Your task to perform on an android device: show emergency info Image 0: 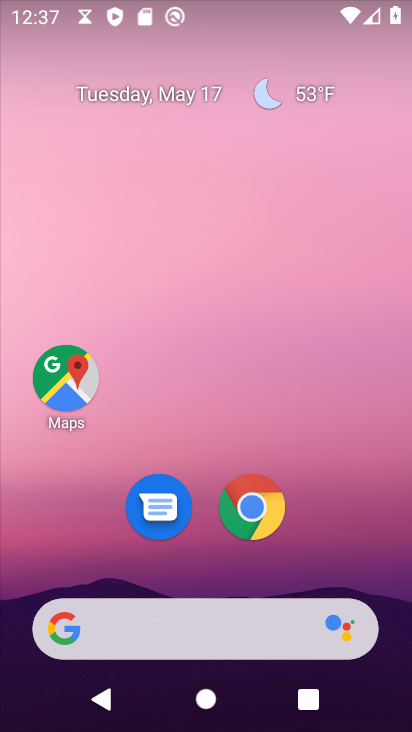
Step 0: drag from (300, 562) to (267, 15)
Your task to perform on an android device: show emergency info Image 1: 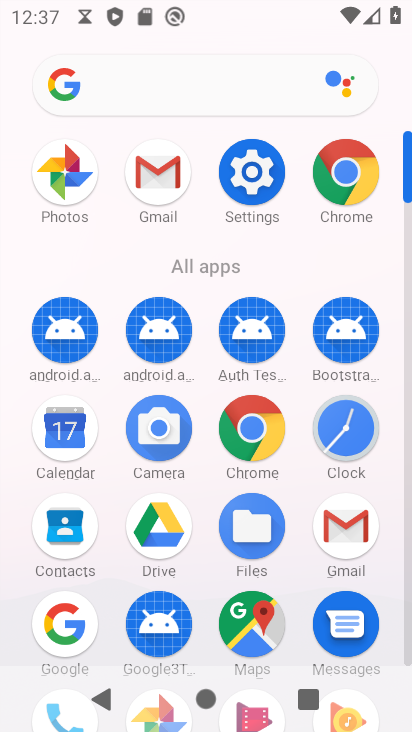
Step 1: click (240, 196)
Your task to perform on an android device: show emergency info Image 2: 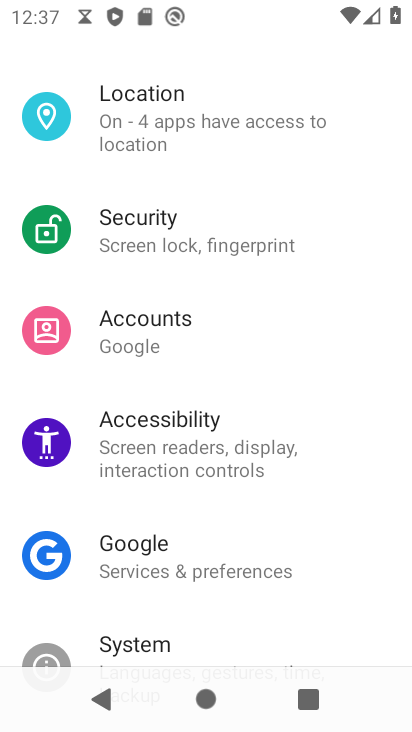
Step 2: drag from (186, 533) to (205, 401)
Your task to perform on an android device: show emergency info Image 3: 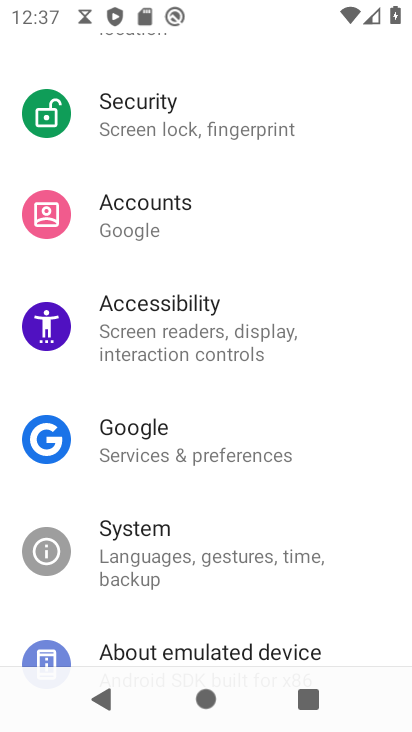
Step 3: drag from (222, 599) to (211, 431)
Your task to perform on an android device: show emergency info Image 4: 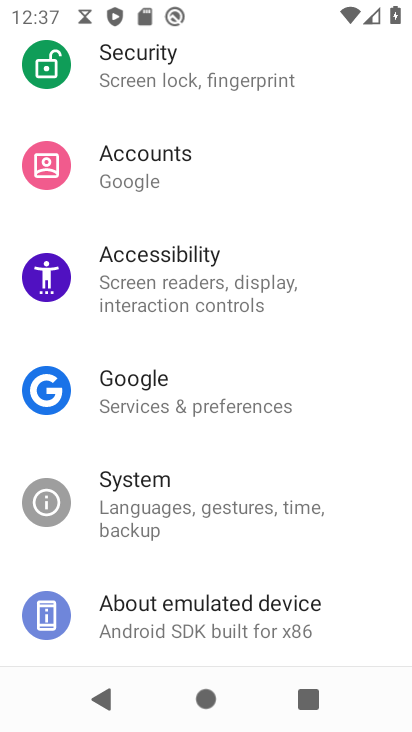
Step 4: click (196, 617)
Your task to perform on an android device: show emergency info Image 5: 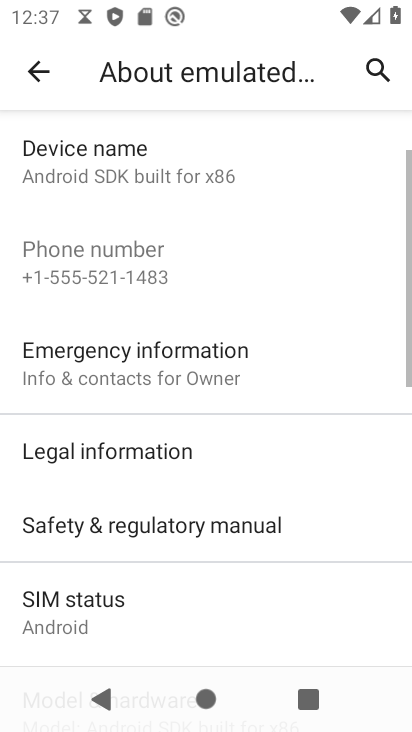
Step 5: click (195, 365)
Your task to perform on an android device: show emergency info Image 6: 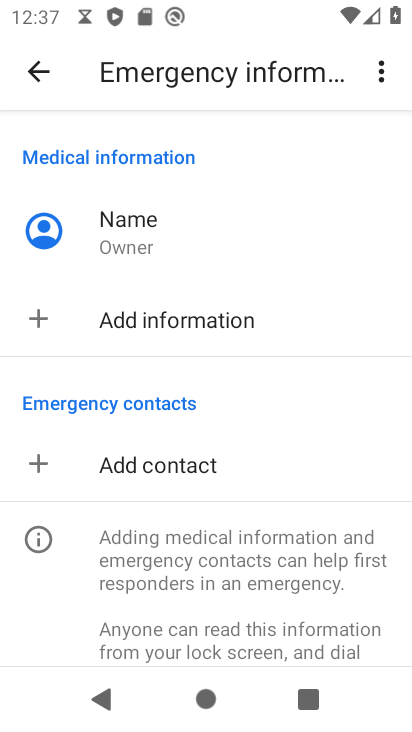
Step 6: task complete